Your task to perform on an android device: open chrome privacy settings Image 0: 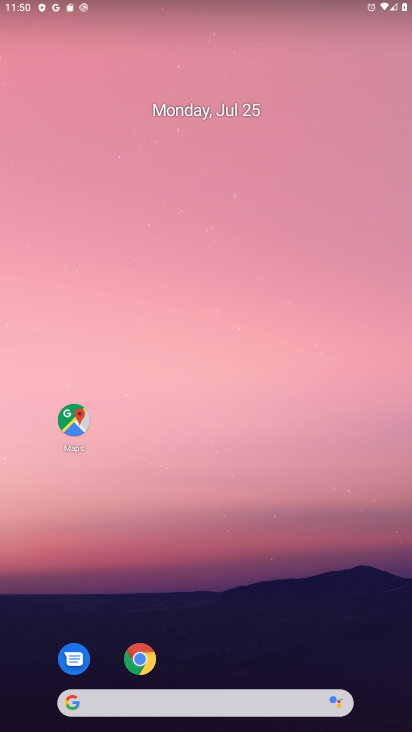
Step 0: click (143, 658)
Your task to perform on an android device: open chrome privacy settings Image 1: 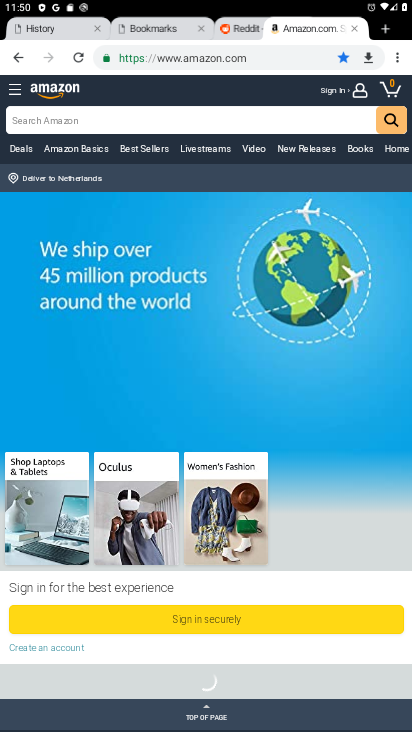
Step 1: click (402, 56)
Your task to perform on an android device: open chrome privacy settings Image 2: 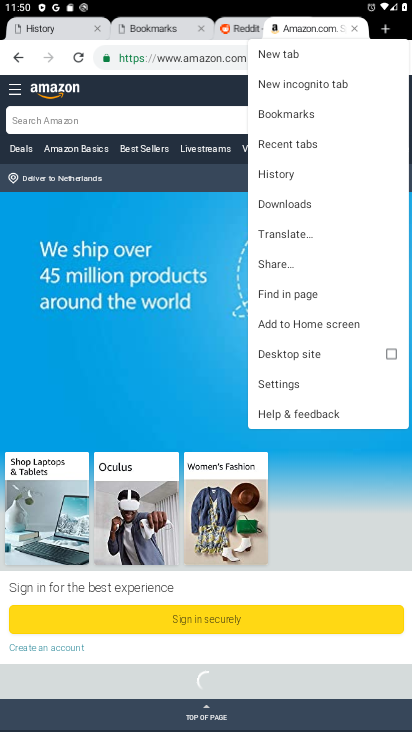
Step 2: click (284, 385)
Your task to perform on an android device: open chrome privacy settings Image 3: 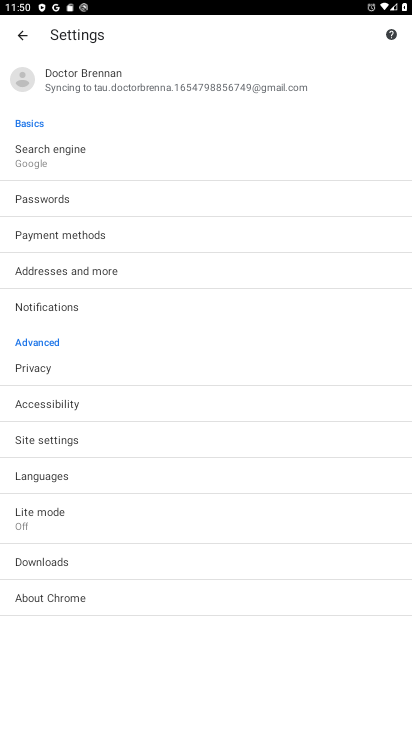
Step 3: click (36, 367)
Your task to perform on an android device: open chrome privacy settings Image 4: 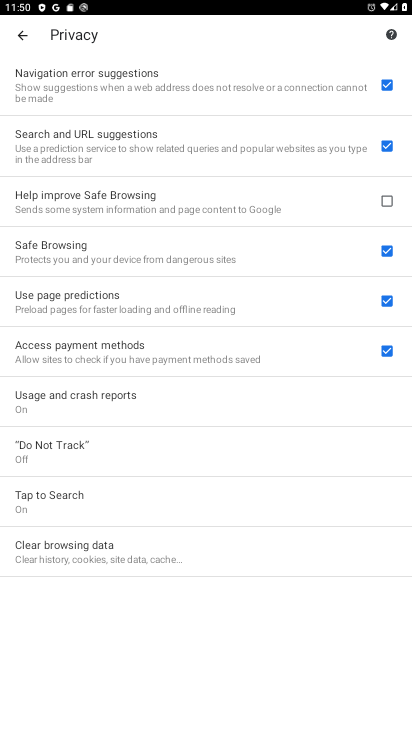
Step 4: task complete